Your task to perform on an android device: check google app version Image 0: 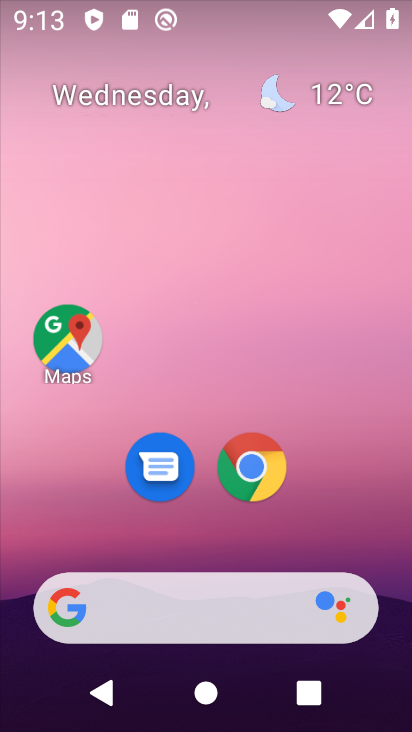
Step 0: press home button
Your task to perform on an android device: check google app version Image 1: 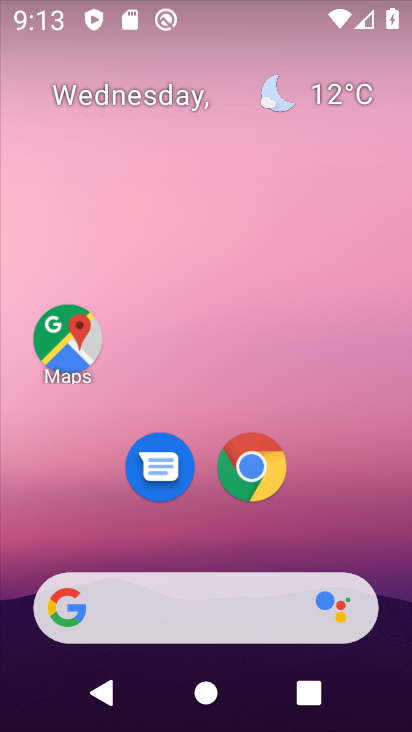
Step 1: drag from (351, 547) to (364, 57)
Your task to perform on an android device: check google app version Image 2: 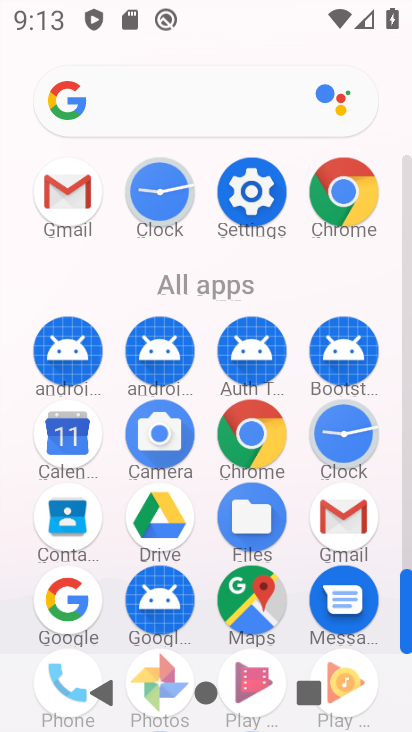
Step 2: click (75, 594)
Your task to perform on an android device: check google app version Image 3: 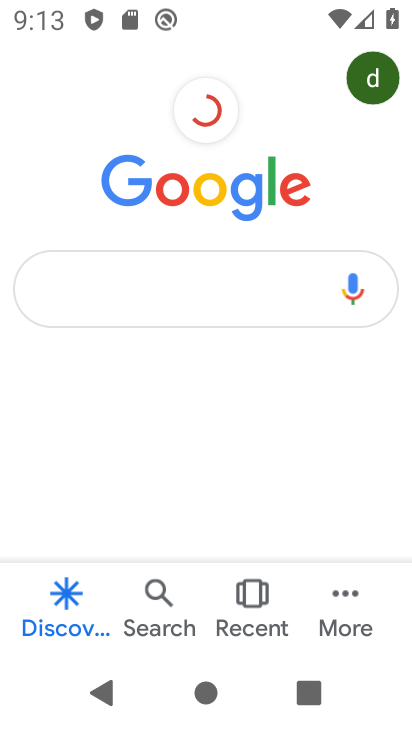
Step 3: click (350, 602)
Your task to perform on an android device: check google app version Image 4: 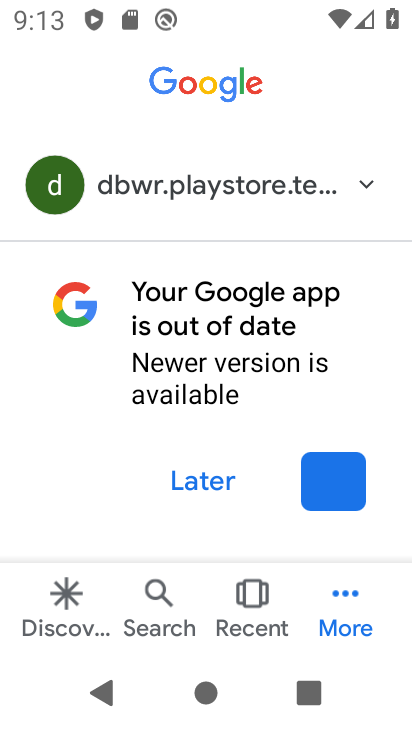
Step 4: click (366, 622)
Your task to perform on an android device: check google app version Image 5: 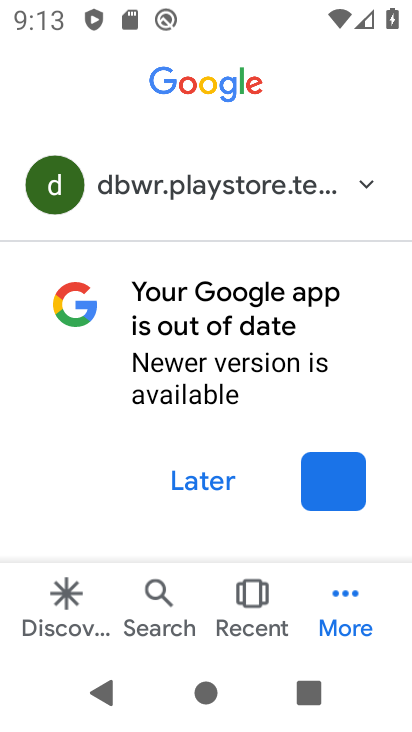
Step 5: click (349, 590)
Your task to perform on an android device: check google app version Image 6: 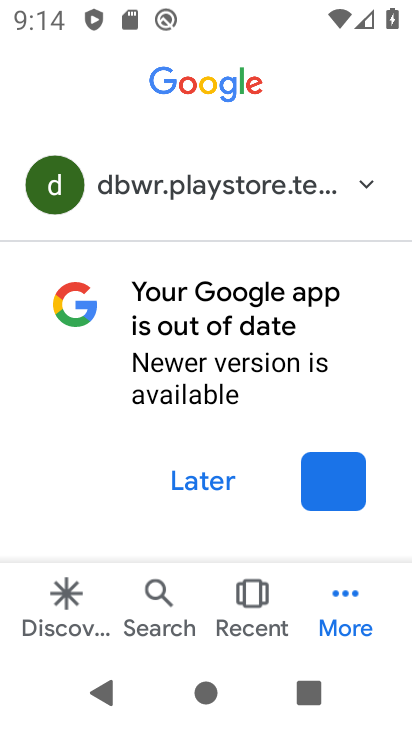
Step 6: click (348, 594)
Your task to perform on an android device: check google app version Image 7: 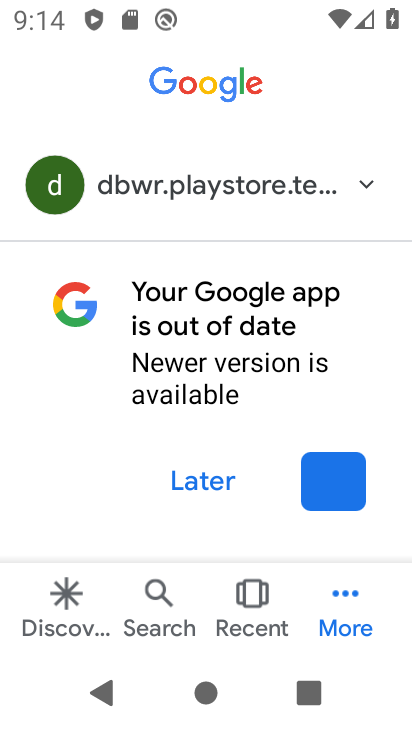
Step 7: click (177, 484)
Your task to perform on an android device: check google app version Image 8: 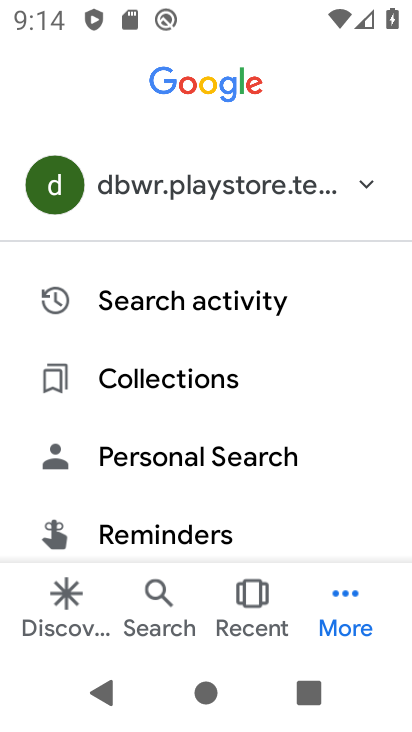
Step 8: click (326, 583)
Your task to perform on an android device: check google app version Image 9: 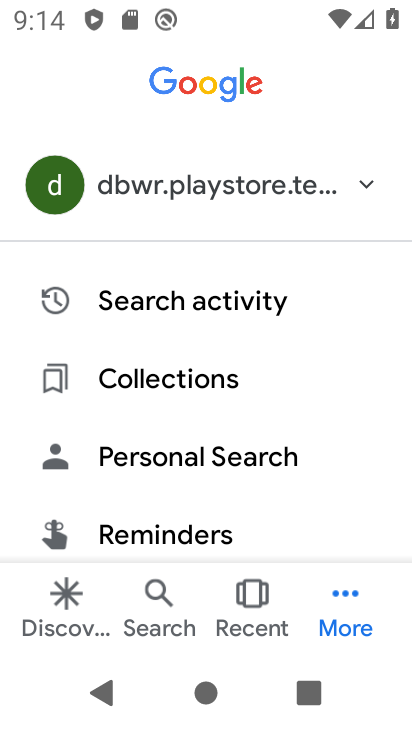
Step 9: drag from (326, 533) to (317, 144)
Your task to perform on an android device: check google app version Image 10: 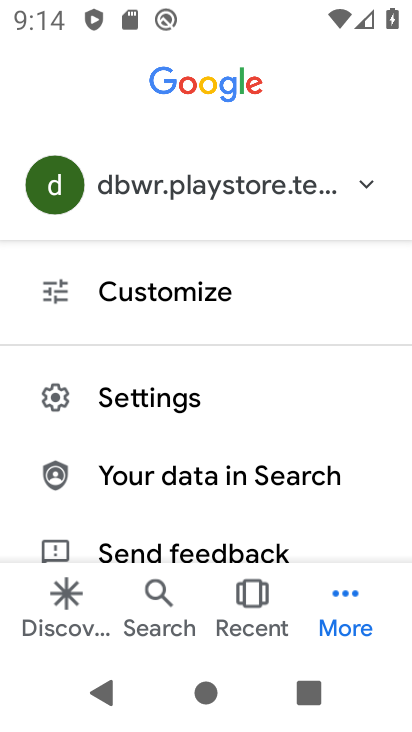
Step 10: click (224, 393)
Your task to perform on an android device: check google app version Image 11: 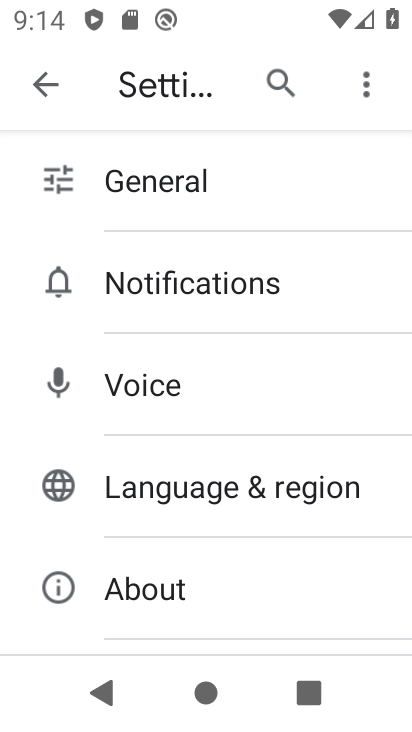
Step 11: click (170, 591)
Your task to perform on an android device: check google app version Image 12: 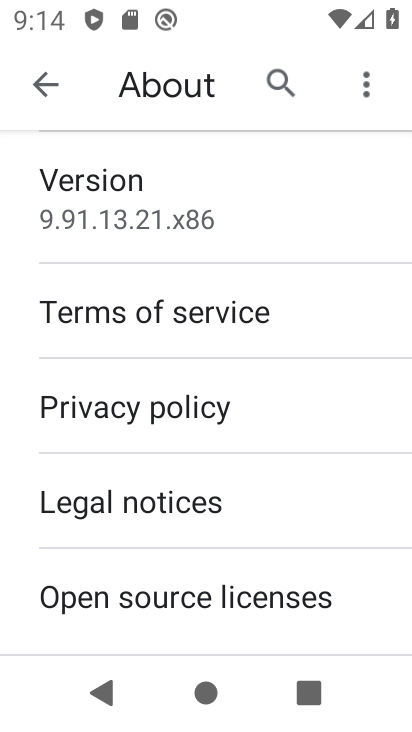
Step 12: drag from (170, 591) to (193, 661)
Your task to perform on an android device: check google app version Image 13: 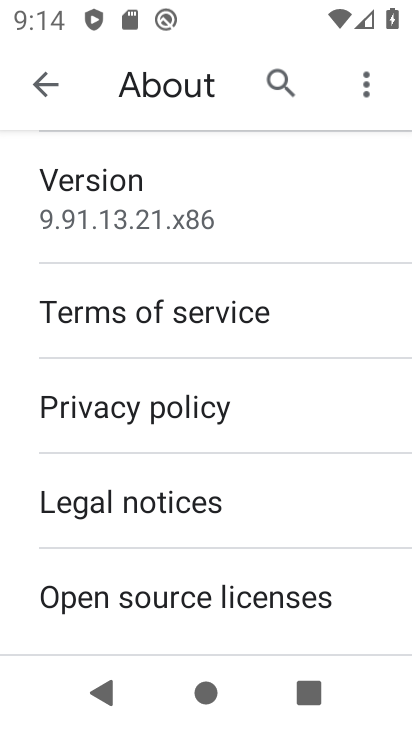
Step 13: click (204, 211)
Your task to perform on an android device: check google app version Image 14: 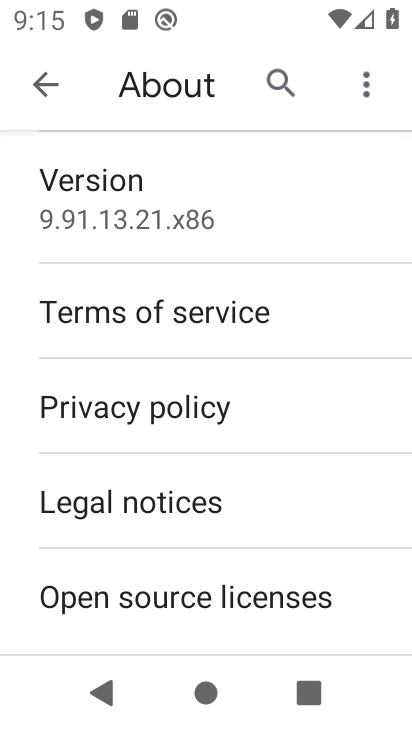
Step 14: task complete